Your task to perform on an android device: turn off translation in the chrome app Image 0: 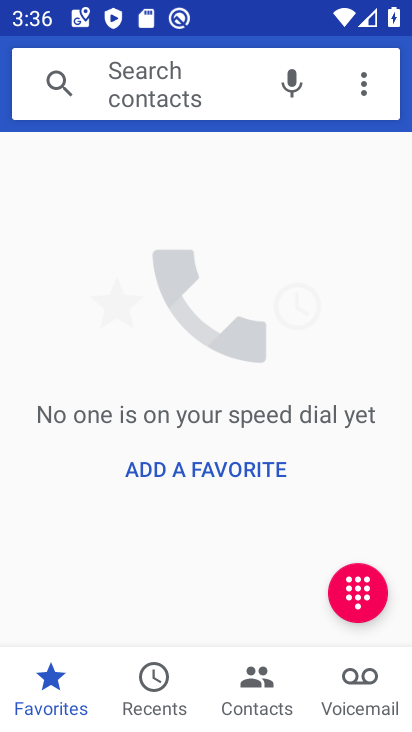
Step 0: press home button
Your task to perform on an android device: turn off translation in the chrome app Image 1: 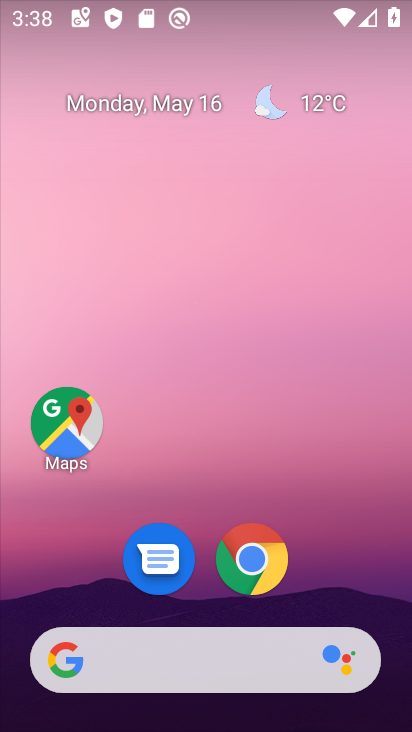
Step 1: click (235, 557)
Your task to perform on an android device: turn off translation in the chrome app Image 2: 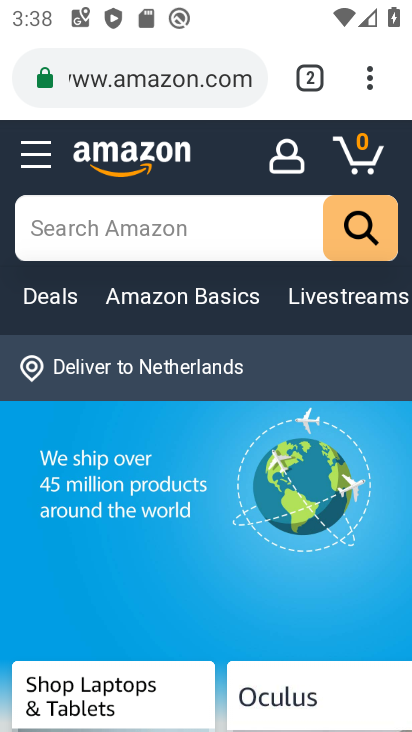
Step 2: click (365, 85)
Your task to perform on an android device: turn off translation in the chrome app Image 3: 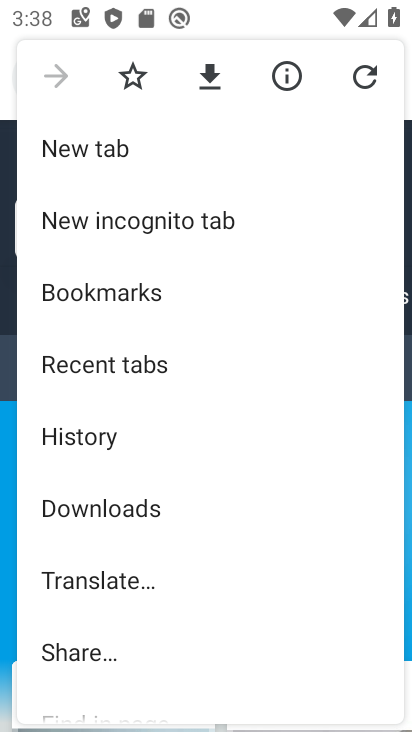
Step 3: drag from (147, 595) to (114, 235)
Your task to perform on an android device: turn off translation in the chrome app Image 4: 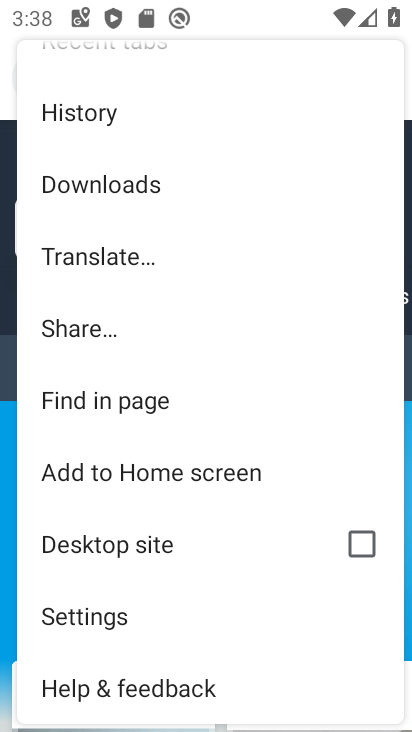
Step 4: click (132, 624)
Your task to perform on an android device: turn off translation in the chrome app Image 5: 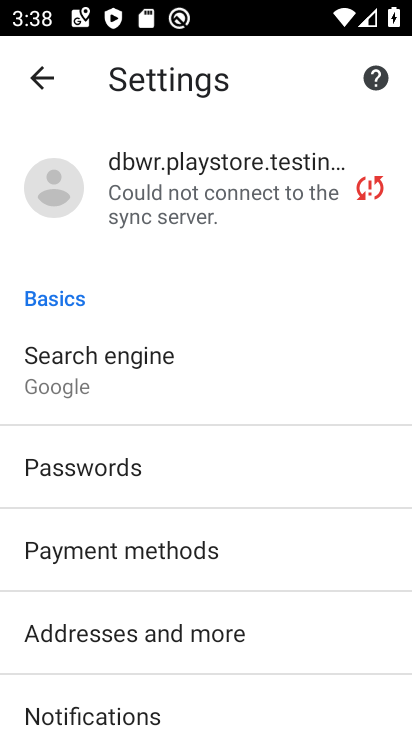
Step 5: drag from (184, 618) to (174, 308)
Your task to perform on an android device: turn off translation in the chrome app Image 6: 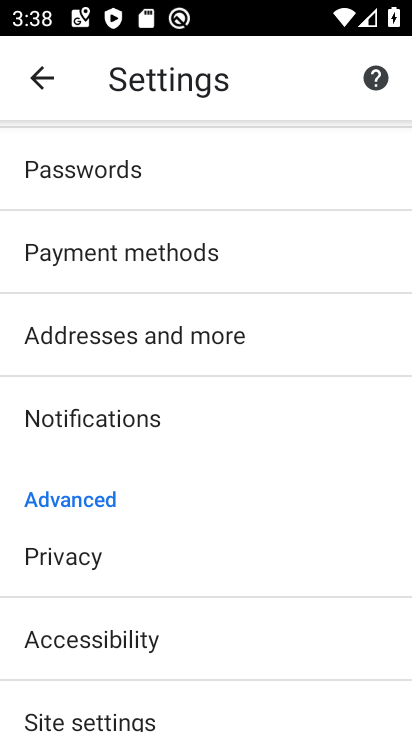
Step 6: drag from (123, 666) to (150, 457)
Your task to perform on an android device: turn off translation in the chrome app Image 7: 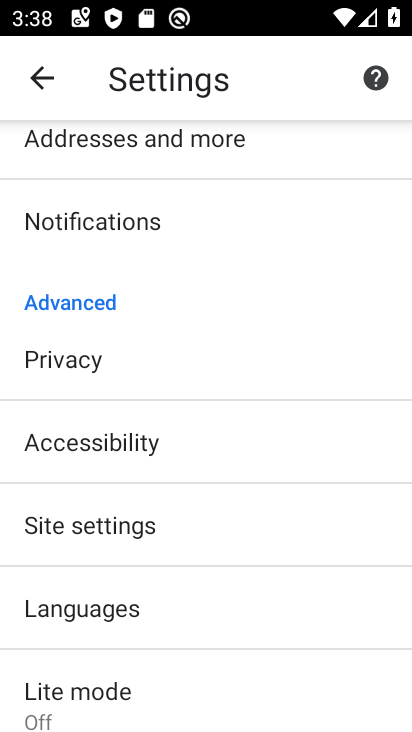
Step 7: click (146, 555)
Your task to perform on an android device: turn off translation in the chrome app Image 8: 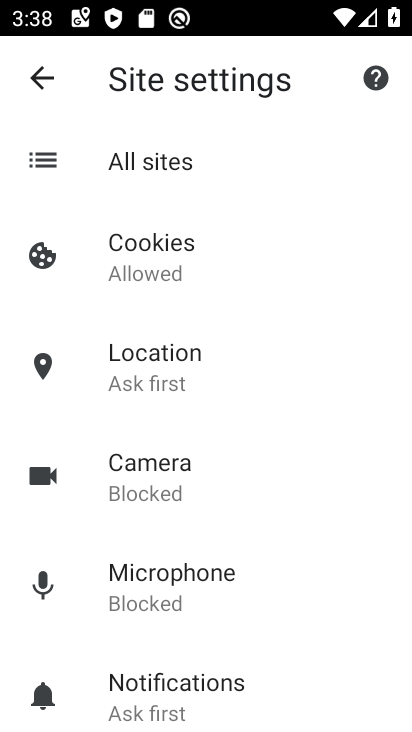
Step 8: click (41, 83)
Your task to perform on an android device: turn off translation in the chrome app Image 9: 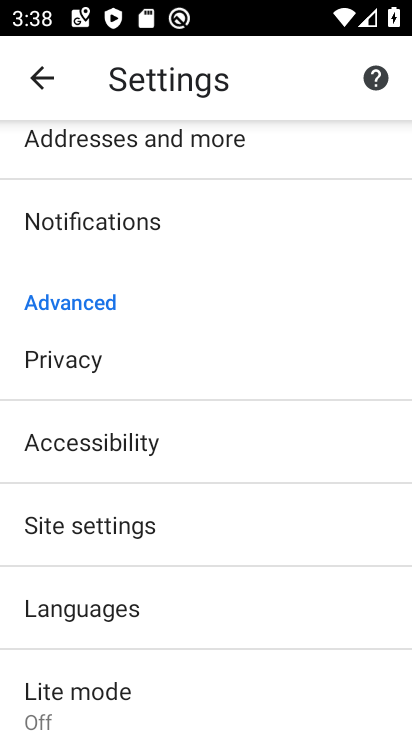
Step 9: click (120, 630)
Your task to perform on an android device: turn off translation in the chrome app Image 10: 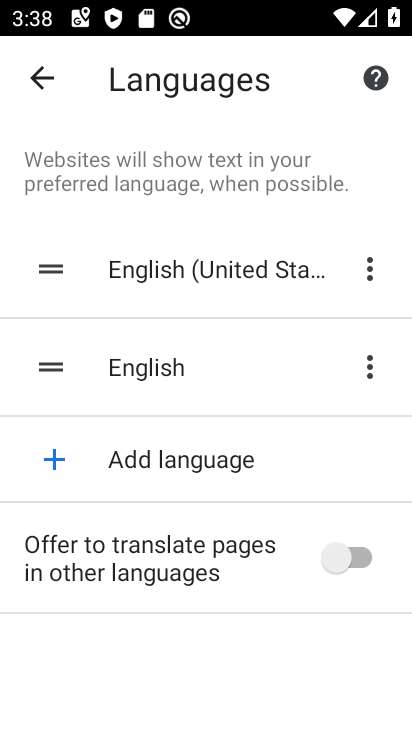
Step 10: task complete